Your task to perform on an android device: Open the calendar and show me this week's events? Image 0: 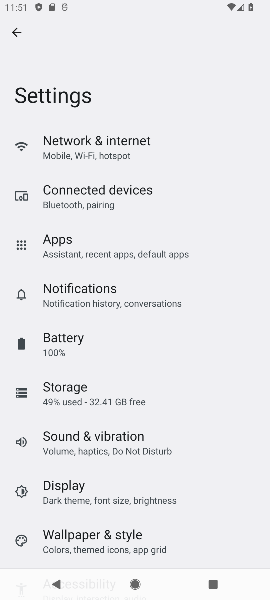
Step 0: press home button
Your task to perform on an android device: Open the calendar and show me this week's events? Image 1: 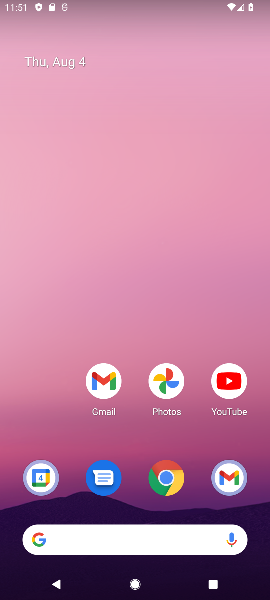
Step 1: drag from (193, 493) to (197, 104)
Your task to perform on an android device: Open the calendar and show me this week's events? Image 2: 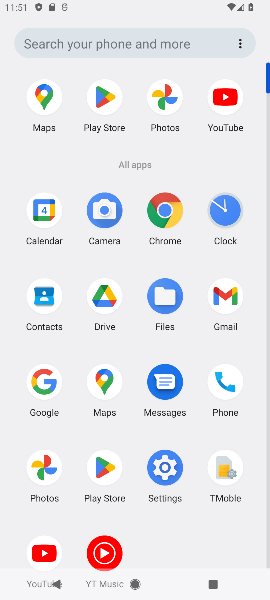
Step 2: click (46, 205)
Your task to perform on an android device: Open the calendar and show me this week's events? Image 3: 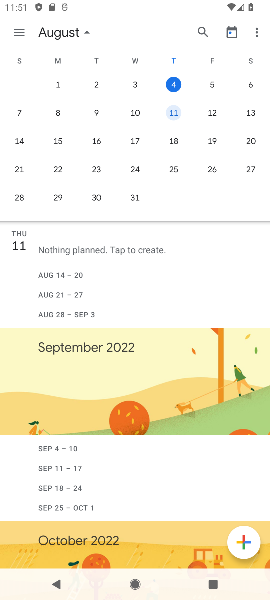
Step 3: click (249, 83)
Your task to perform on an android device: Open the calendar and show me this week's events? Image 4: 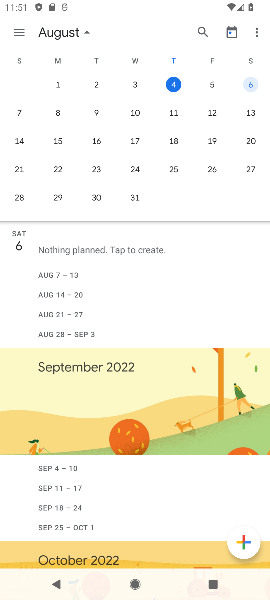
Step 4: task complete